Your task to perform on an android device: Do I have any events today? Image 0: 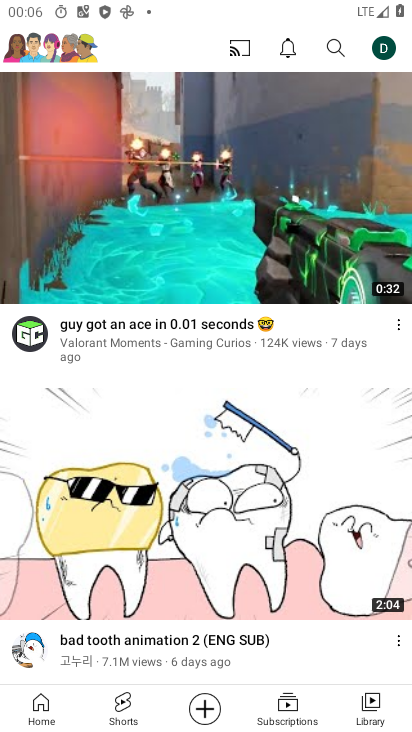
Step 0: press home button
Your task to perform on an android device: Do I have any events today? Image 1: 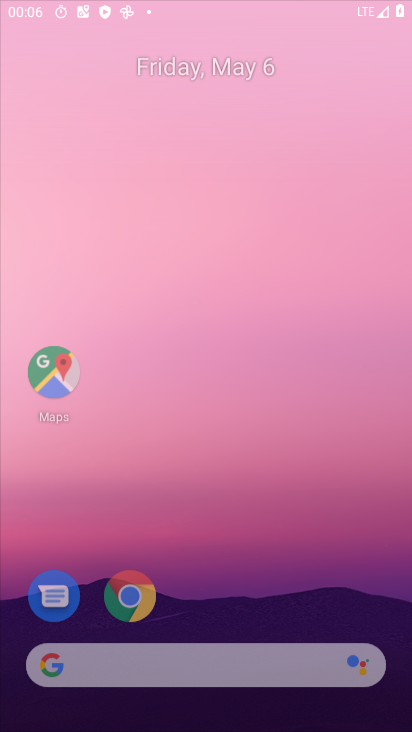
Step 1: press home button
Your task to perform on an android device: Do I have any events today? Image 2: 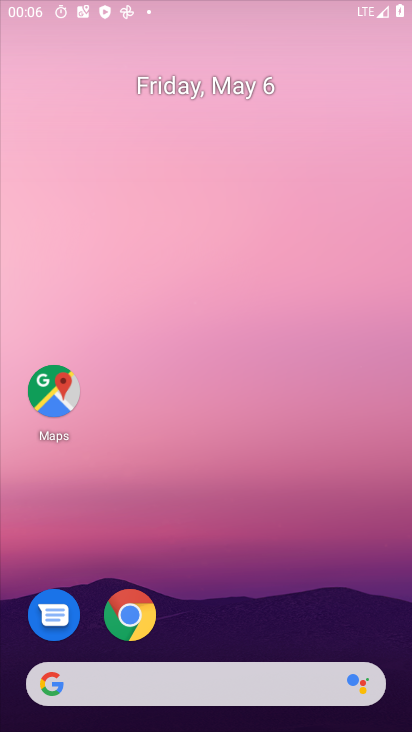
Step 2: press home button
Your task to perform on an android device: Do I have any events today? Image 3: 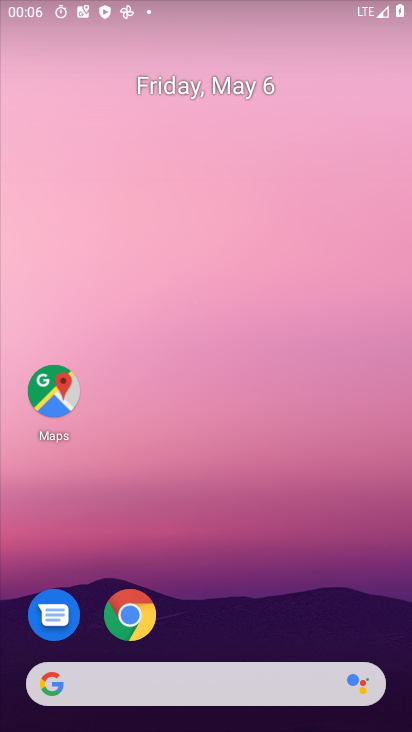
Step 3: drag from (237, 608) to (294, 17)
Your task to perform on an android device: Do I have any events today? Image 4: 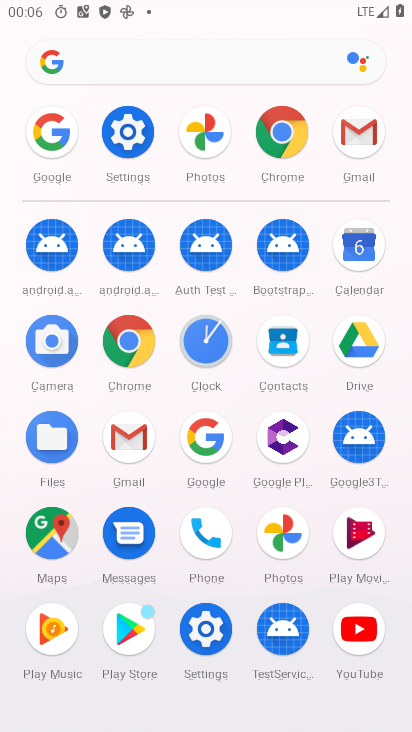
Step 4: click (359, 252)
Your task to perform on an android device: Do I have any events today? Image 5: 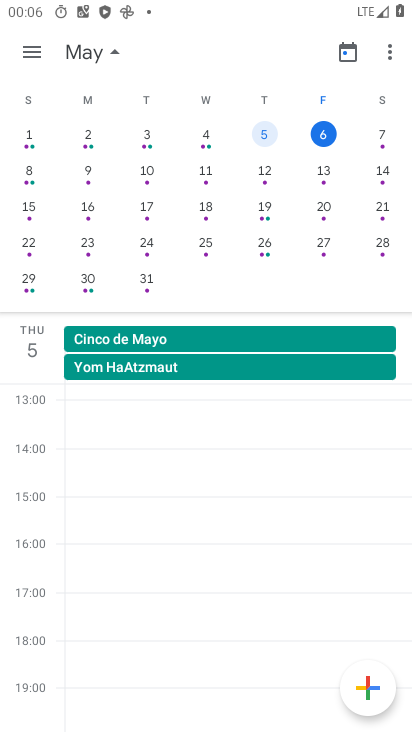
Step 5: click (324, 135)
Your task to perform on an android device: Do I have any events today? Image 6: 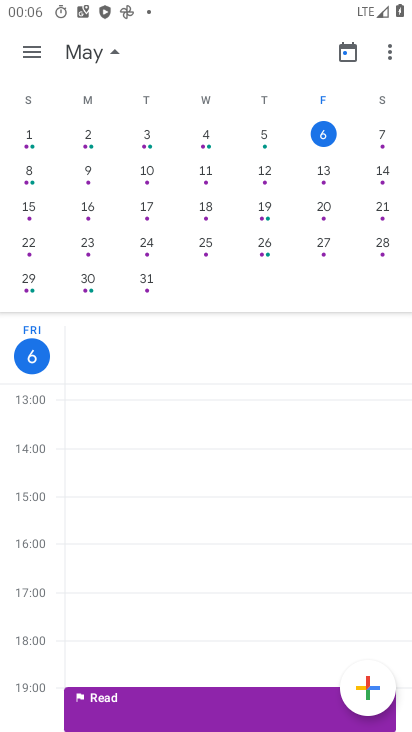
Step 6: task complete